Your task to perform on an android device: delete the emails in spam in the gmail app Image 0: 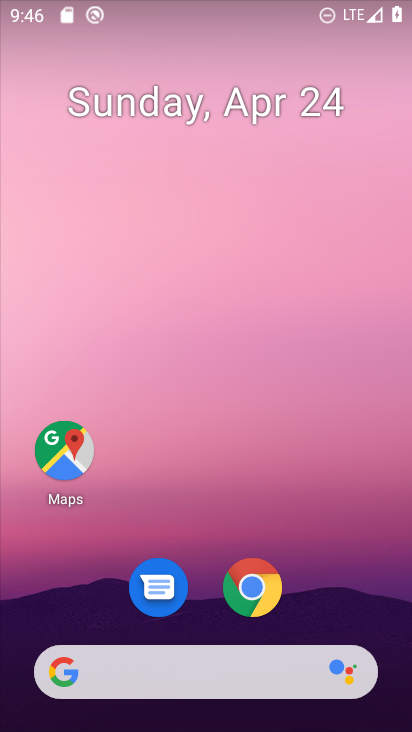
Step 0: drag from (362, 549) to (342, 87)
Your task to perform on an android device: delete the emails in spam in the gmail app Image 1: 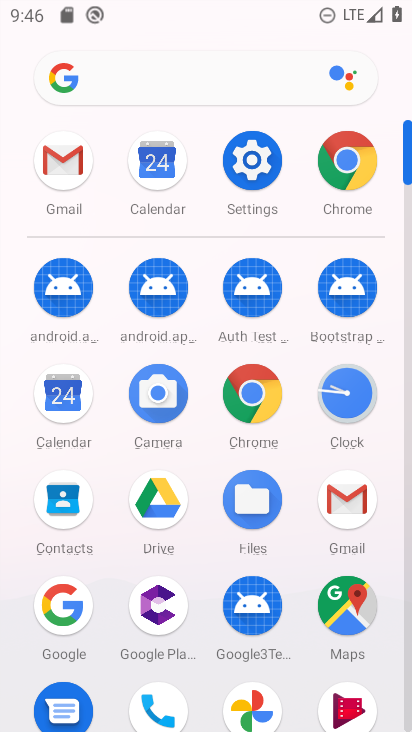
Step 1: click (359, 499)
Your task to perform on an android device: delete the emails in spam in the gmail app Image 2: 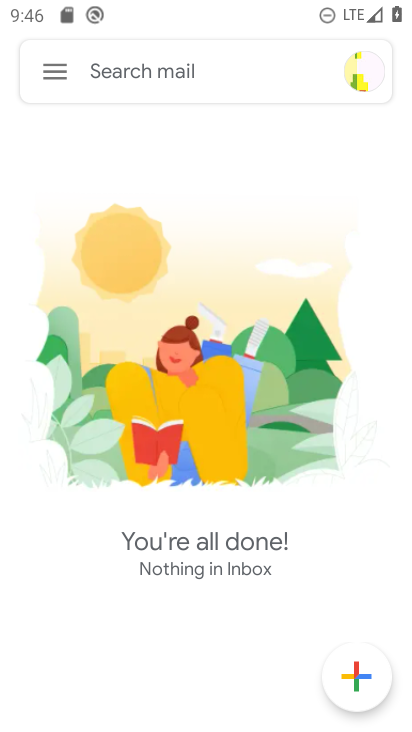
Step 2: click (54, 79)
Your task to perform on an android device: delete the emails in spam in the gmail app Image 3: 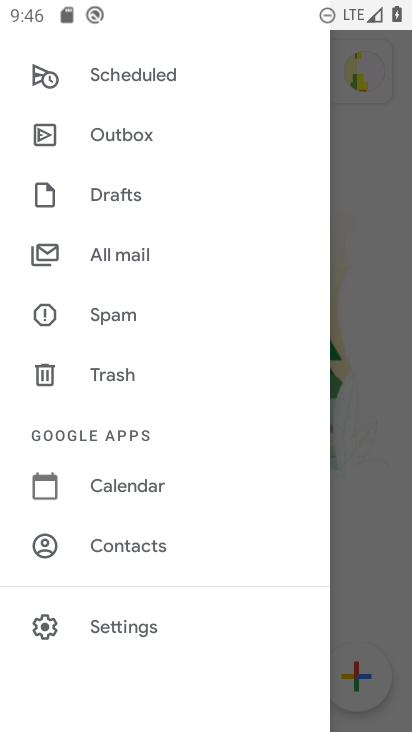
Step 3: click (136, 319)
Your task to perform on an android device: delete the emails in spam in the gmail app Image 4: 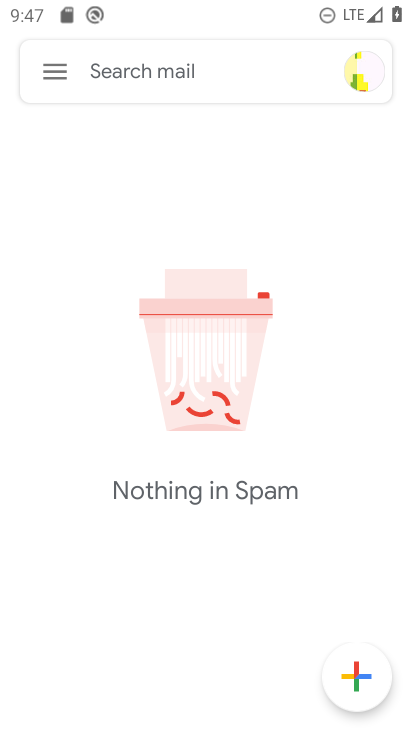
Step 4: task complete